Your task to perform on an android device: see sites visited before in the chrome app Image 0: 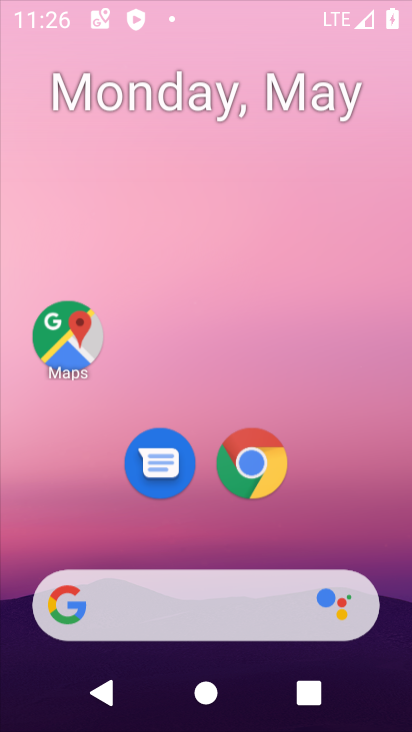
Step 0: click (350, 73)
Your task to perform on an android device: see sites visited before in the chrome app Image 1: 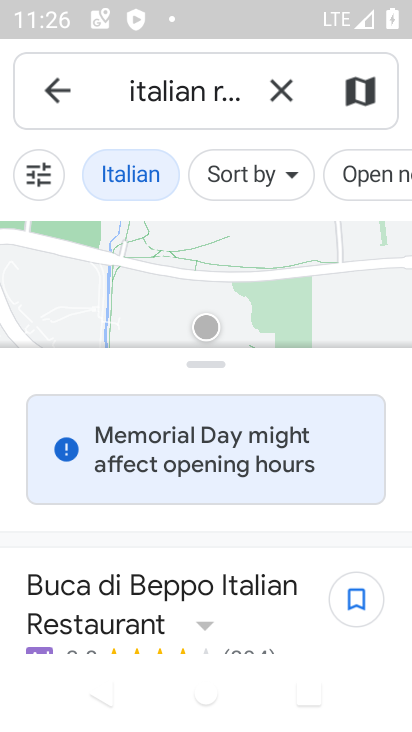
Step 1: press back button
Your task to perform on an android device: see sites visited before in the chrome app Image 2: 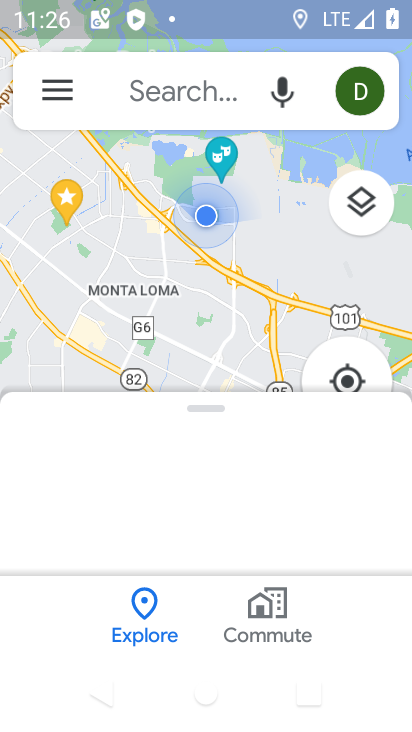
Step 2: press back button
Your task to perform on an android device: see sites visited before in the chrome app Image 3: 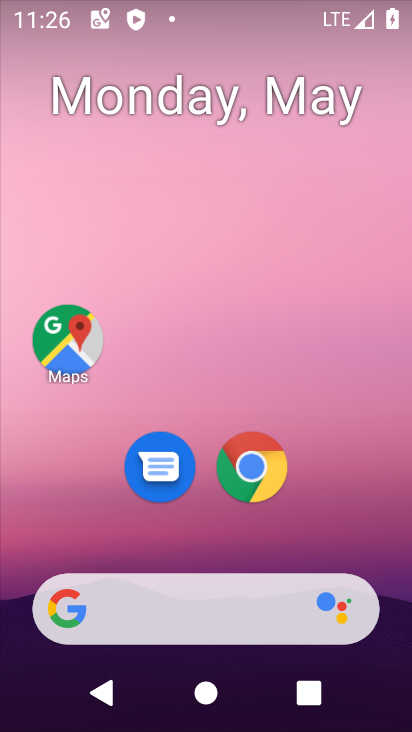
Step 3: click (249, 473)
Your task to perform on an android device: see sites visited before in the chrome app Image 4: 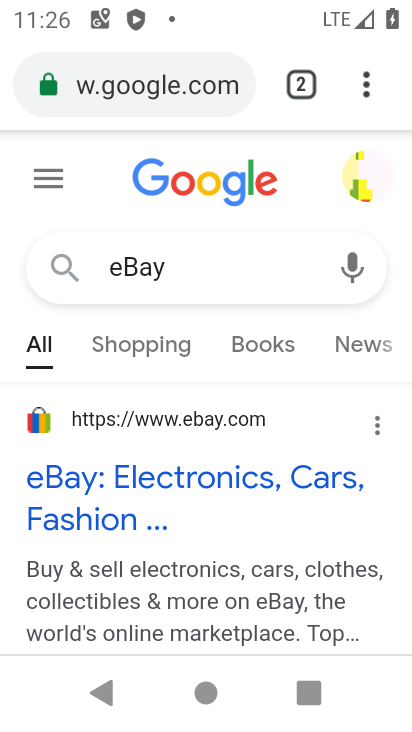
Step 4: click (361, 81)
Your task to perform on an android device: see sites visited before in the chrome app Image 5: 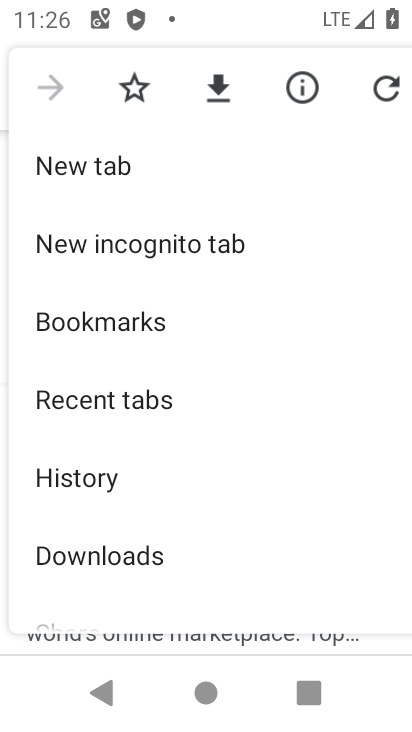
Step 5: drag from (299, 575) to (309, 225)
Your task to perform on an android device: see sites visited before in the chrome app Image 6: 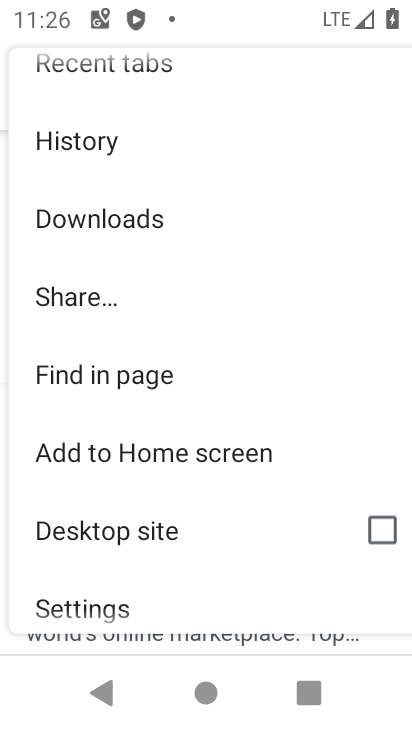
Step 6: drag from (301, 593) to (315, 214)
Your task to perform on an android device: see sites visited before in the chrome app Image 7: 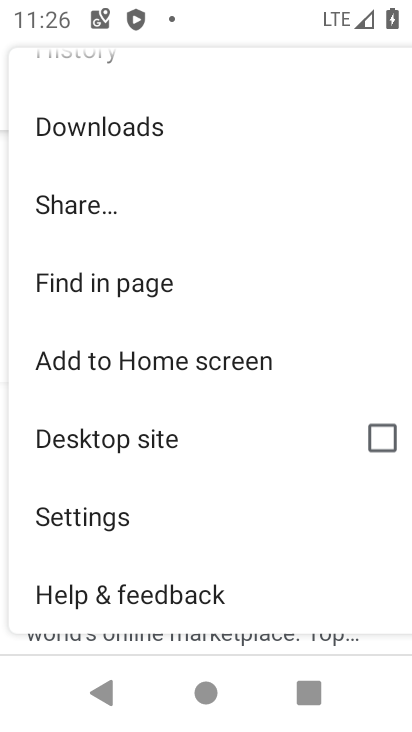
Step 7: drag from (215, 114) to (283, 562)
Your task to perform on an android device: see sites visited before in the chrome app Image 8: 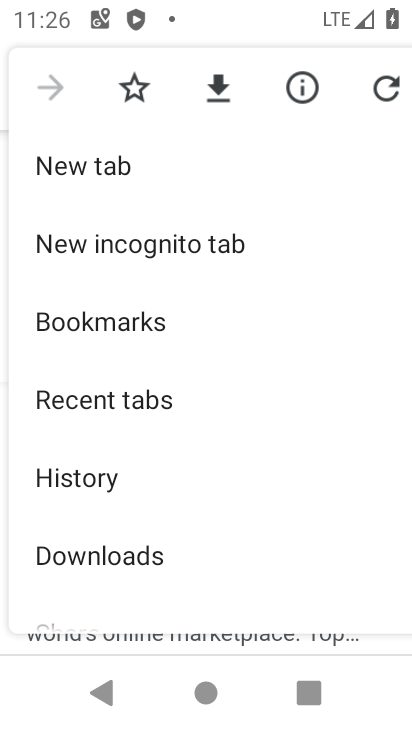
Step 8: click (71, 398)
Your task to perform on an android device: see sites visited before in the chrome app Image 9: 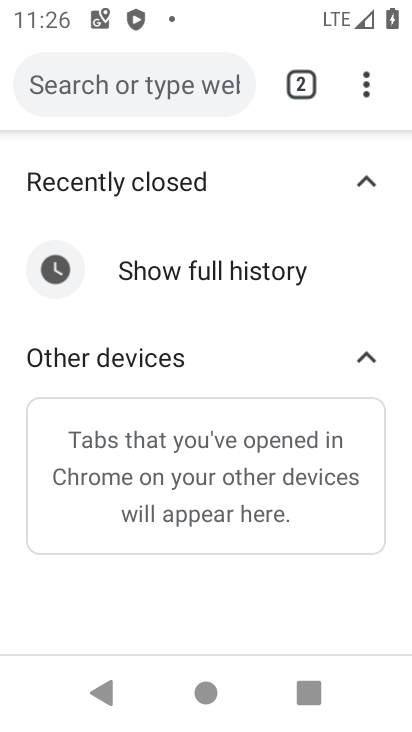
Step 9: task complete